Your task to perform on an android device: open a bookmark in the chrome app Image 0: 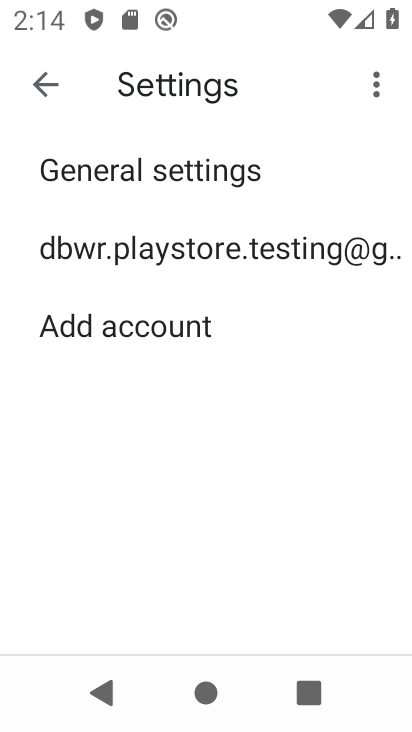
Step 0: press home button
Your task to perform on an android device: open a bookmark in the chrome app Image 1: 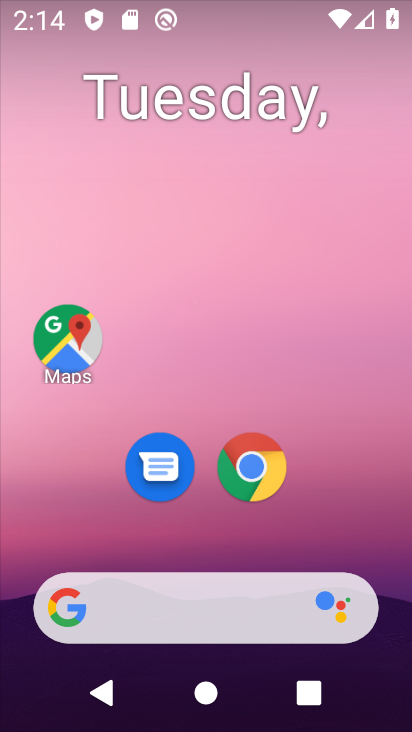
Step 1: drag from (387, 536) to (383, 106)
Your task to perform on an android device: open a bookmark in the chrome app Image 2: 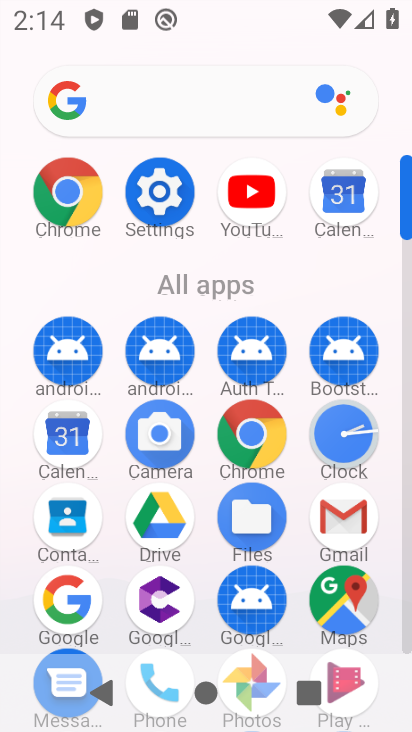
Step 2: click (255, 442)
Your task to perform on an android device: open a bookmark in the chrome app Image 3: 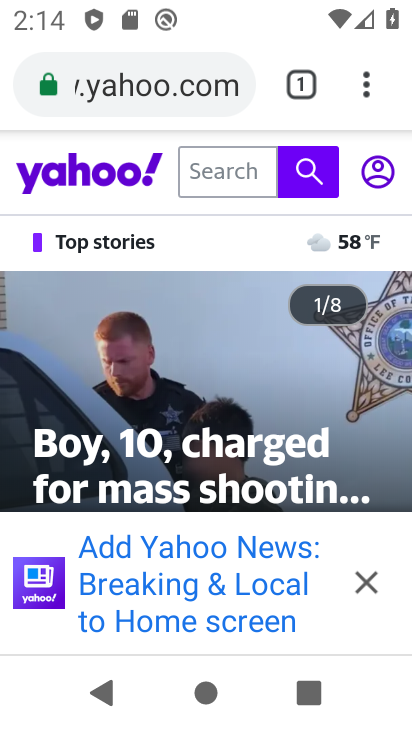
Step 3: click (368, 93)
Your task to perform on an android device: open a bookmark in the chrome app Image 4: 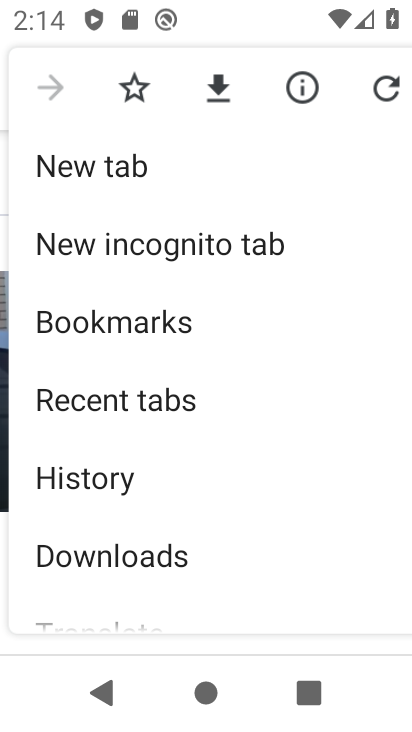
Step 4: drag from (313, 503) to (325, 231)
Your task to perform on an android device: open a bookmark in the chrome app Image 5: 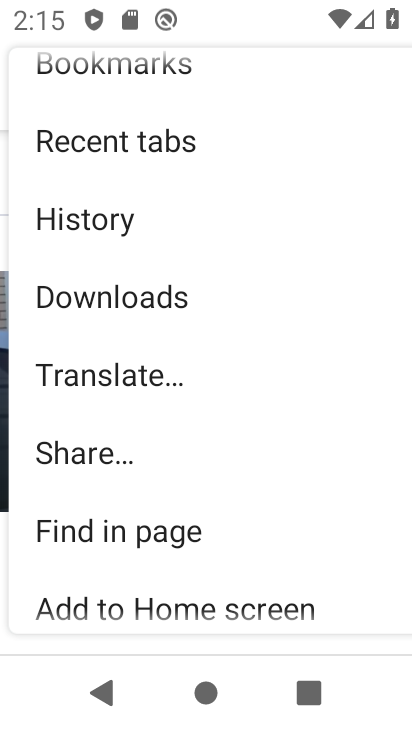
Step 5: drag from (300, 476) to (331, 249)
Your task to perform on an android device: open a bookmark in the chrome app Image 6: 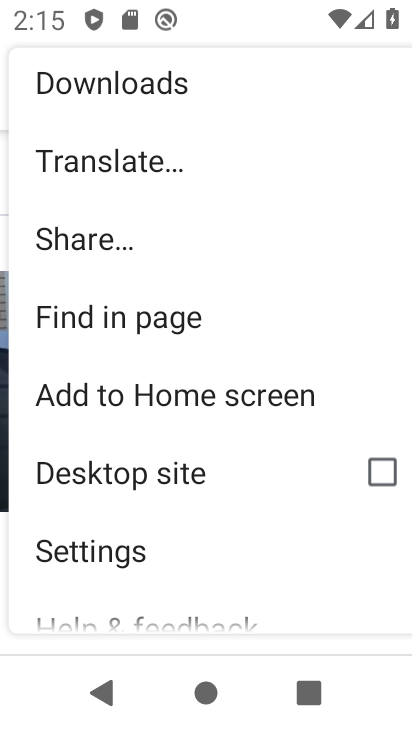
Step 6: drag from (329, 219) to (303, 430)
Your task to perform on an android device: open a bookmark in the chrome app Image 7: 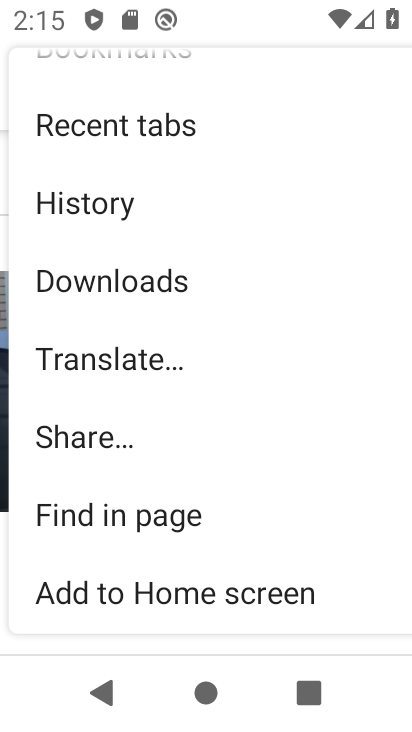
Step 7: drag from (300, 201) to (315, 463)
Your task to perform on an android device: open a bookmark in the chrome app Image 8: 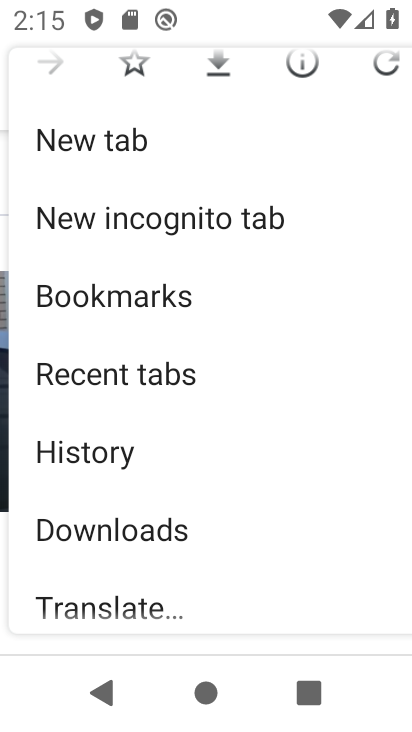
Step 8: click (211, 299)
Your task to perform on an android device: open a bookmark in the chrome app Image 9: 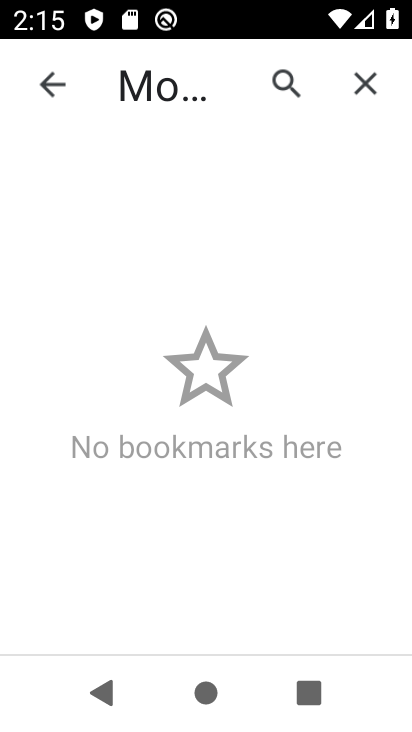
Step 9: task complete